Your task to perform on an android device: Go to Yahoo.com Image 0: 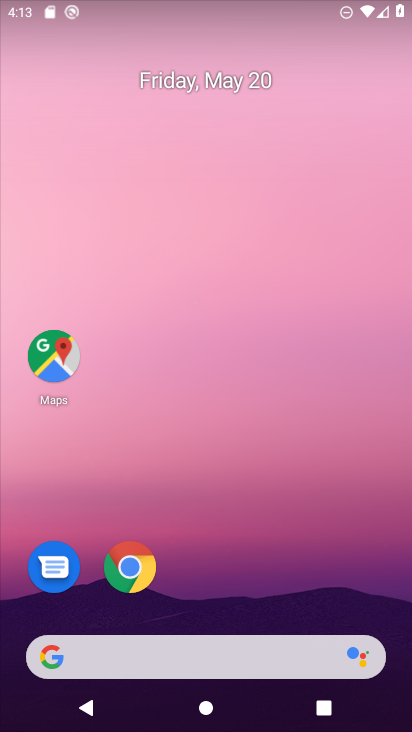
Step 0: click (128, 568)
Your task to perform on an android device: Go to Yahoo.com Image 1: 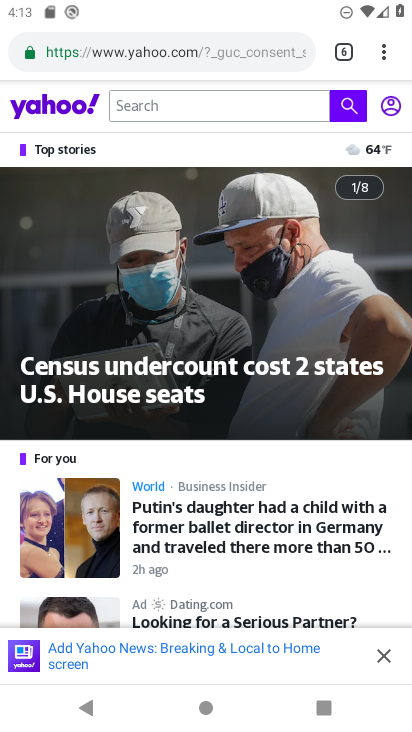
Step 1: task complete